Your task to perform on an android device: Open sound settings Image 0: 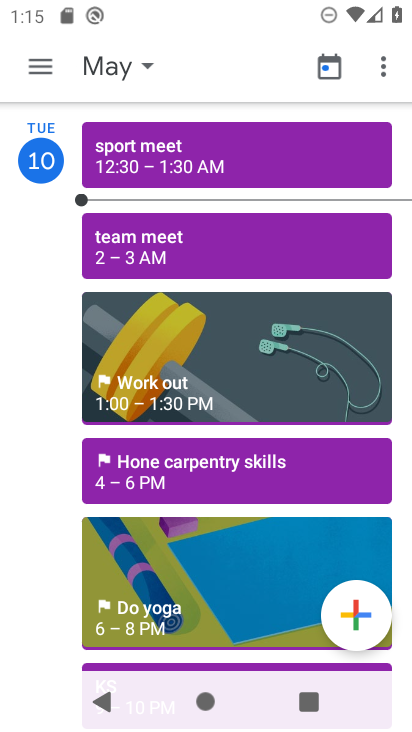
Step 0: press home button
Your task to perform on an android device: Open sound settings Image 1: 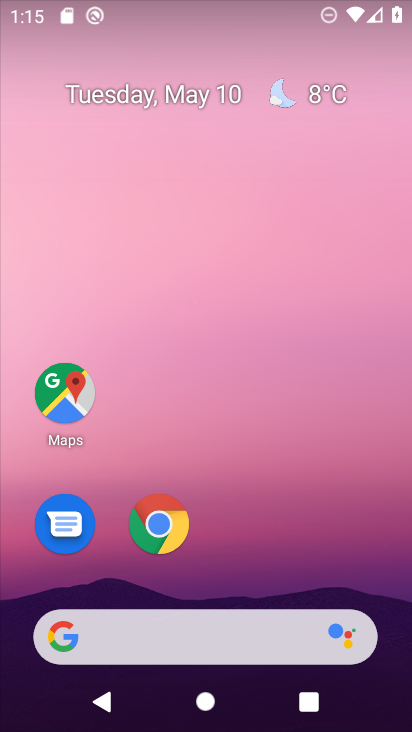
Step 1: drag from (237, 537) to (195, 66)
Your task to perform on an android device: Open sound settings Image 2: 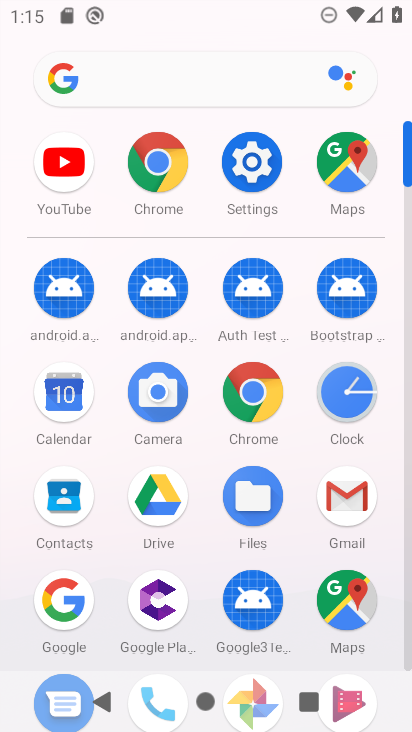
Step 2: click (255, 161)
Your task to perform on an android device: Open sound settings Image 3: 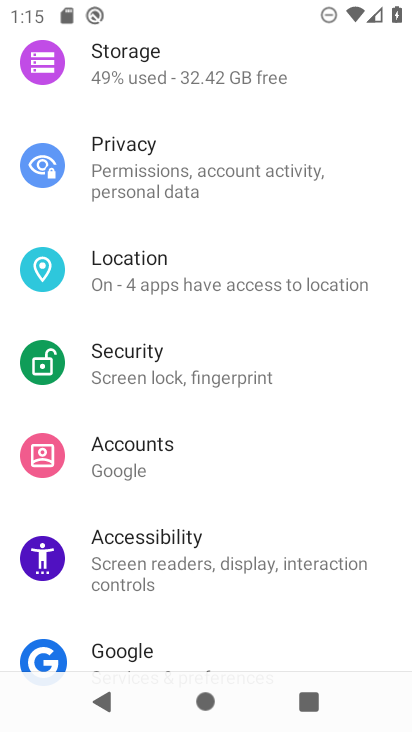
Step 3: drag from (192, 191) to (249, 577)
Your task to perform on an android device: Open sound settings Image 4: 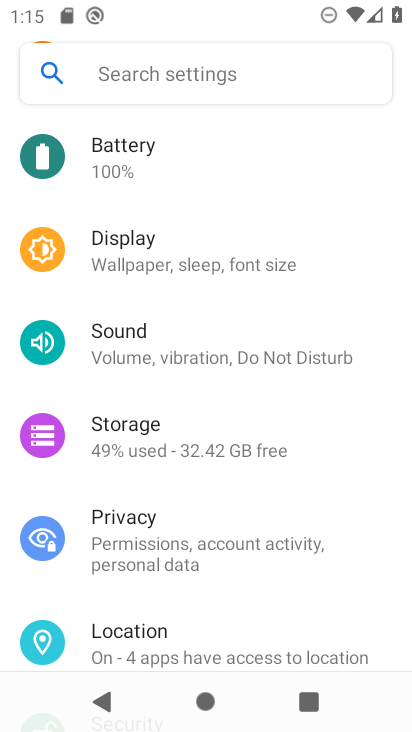
Step 4: click (219, 347)
Your task to perform on an android device: Open sound settings Image 5: 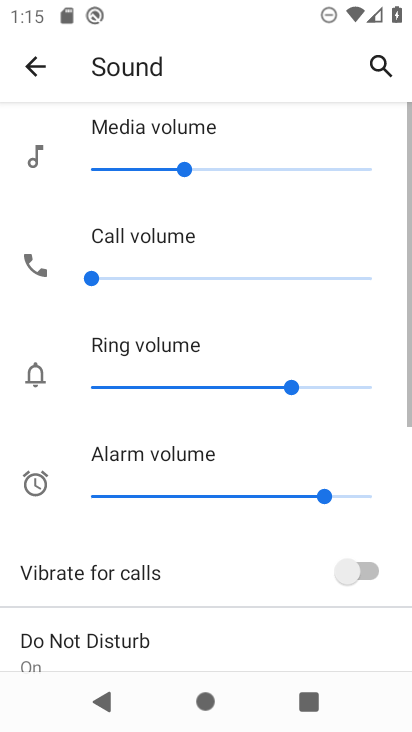
Step 5: task complete